Your task to perform on an android device: open chrome and create a bookmark for the current page Image 0: 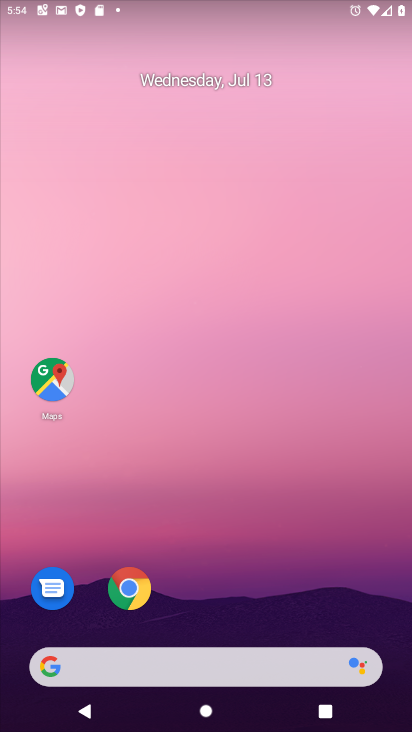
Step 0: click (130, 589)
Your task to perform on an android device: open chrome and create a bookmark for the current page Image 1: 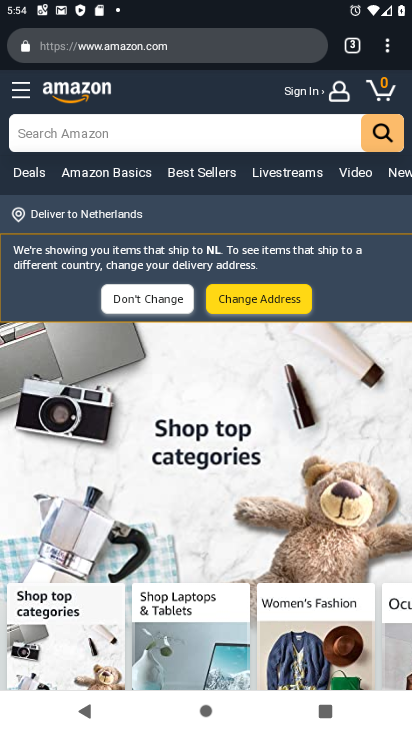
Step 1: click (387, 46)
Your task to perform on an android device: open chrome and create a bookmark for the current page Image 2: 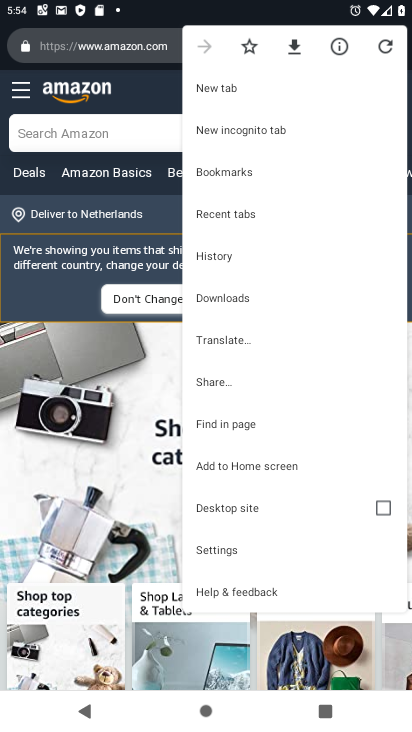
Step 2: click (252, 46)
Your task to perform on an android device: open chrome and create a bookmark for the current page Image 3: 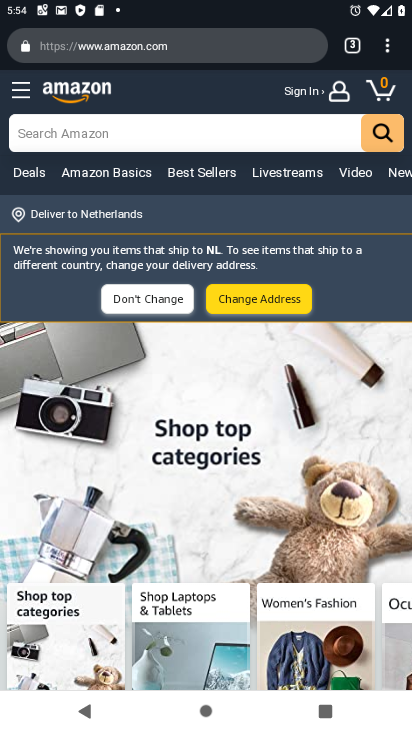
Step 3: task complete